Your task to perform on an android device: turn on translation in the chrome app Image 0: 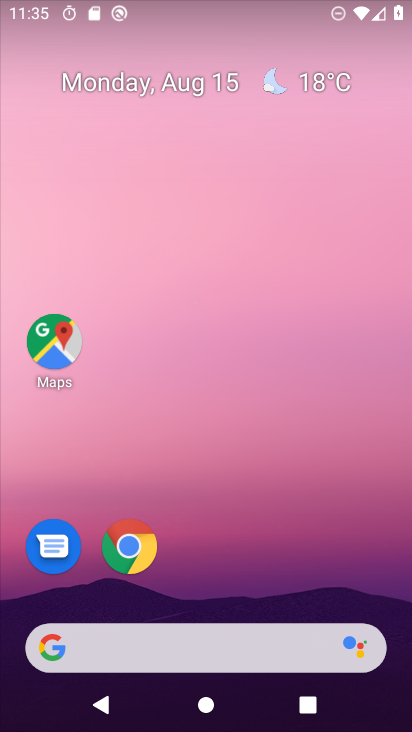
Step 0: drag from (225, 588) to (216, 58)
Your task to perform on an android device: turn on translation in the chrome app Image 1: 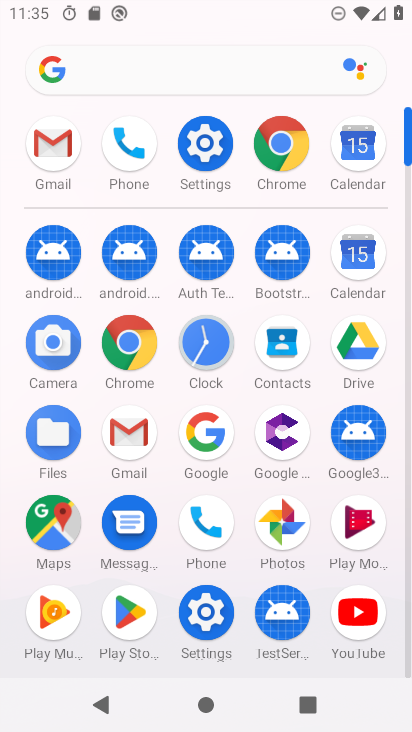
Step 1: click (129, 348)
Your task to perform on an android device: turn on translation in the chrome app Image 2: 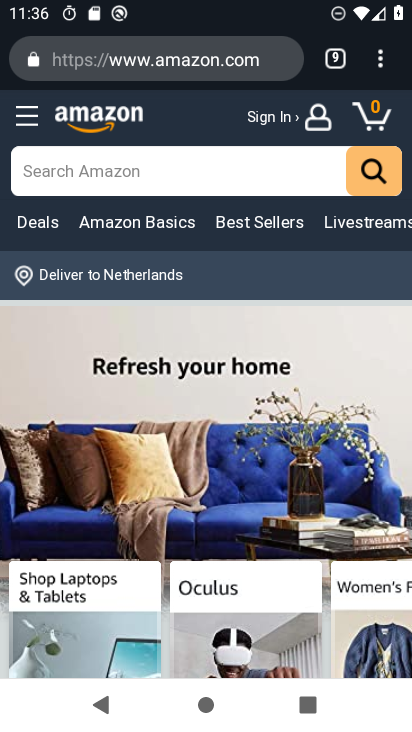
Step 2: click (381, 63)
Your task to perform on an android device: turn on translation in the chrome app Image 3: 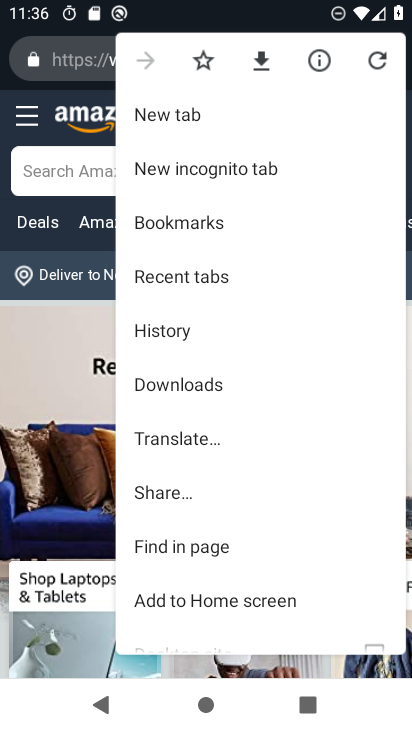
Step 3: drag from (162, 586) to (157, 221)
Your task to perform on an android device: turn on translation in the chrome app Image 4: 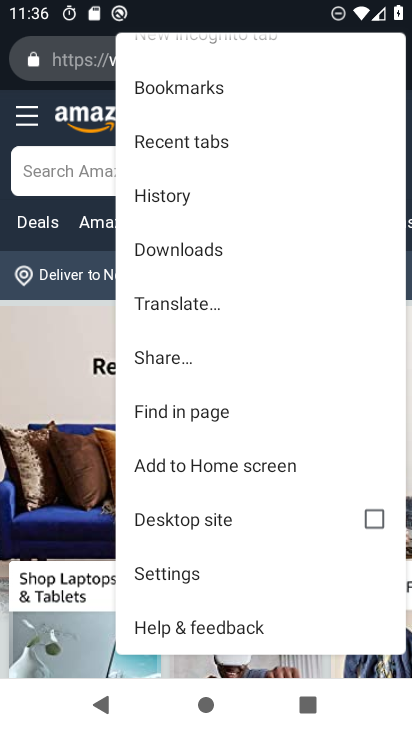
Step 4: click (159, 564)
Your task to perform on an android device: turn on translation in the chrome app Image 5: 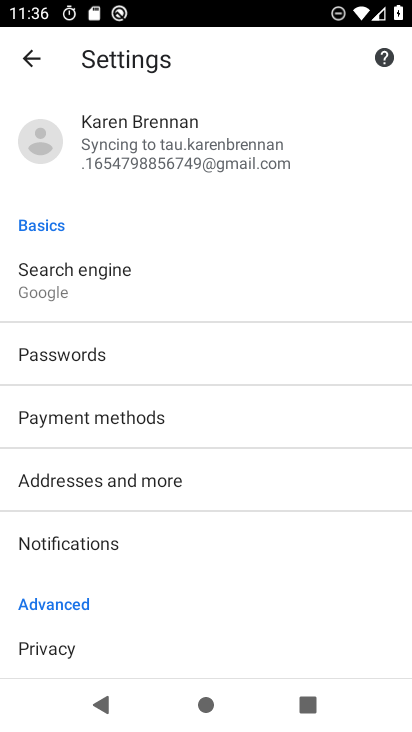
Step 5: drag from (85, 631) to (88, 384)
Your task to perform on an android device: turn on translation in the chrome app Image 6: 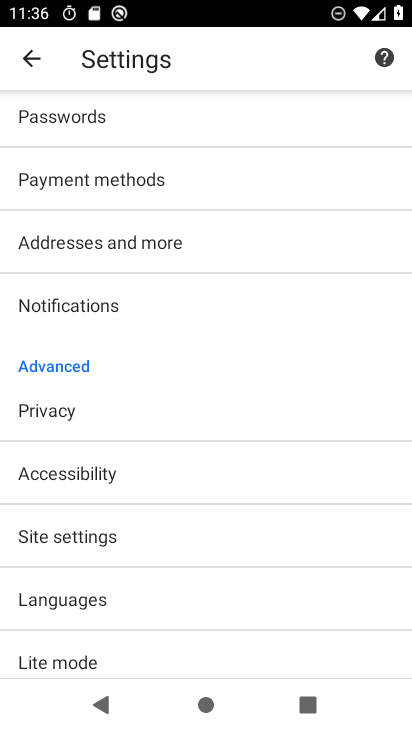
Step 6: click (56, 598)
Your task to perform on an android device: turn on translation in the chrome app Image 7: 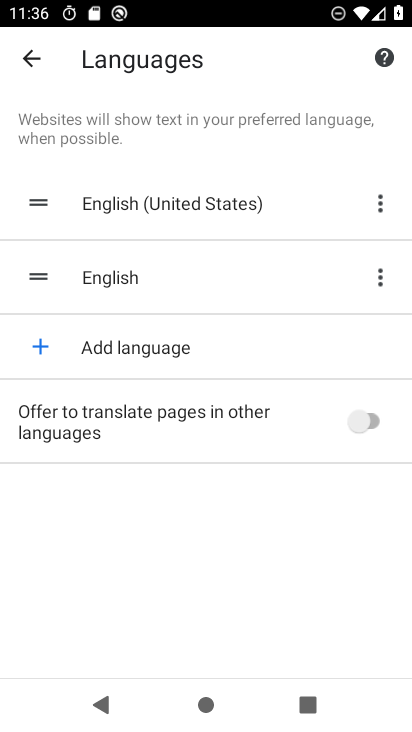
Step 7: click (365, 425)
Your task to perform on an android device: turn on translation in the chrome app Image 8: 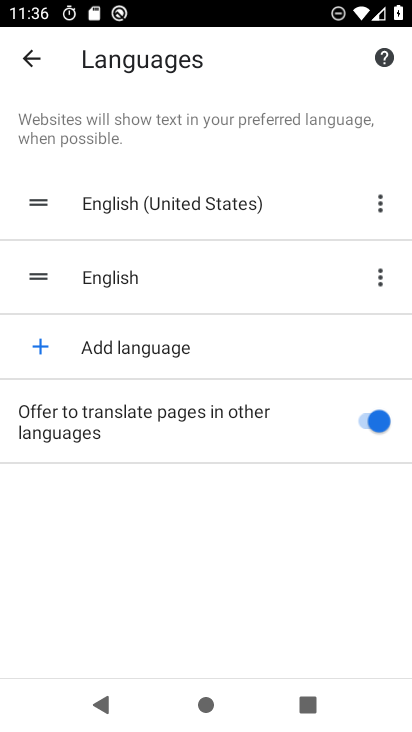
Step 8: task complete